Your task to perform on an android device: see sites visited before in the chrome app Image 0: 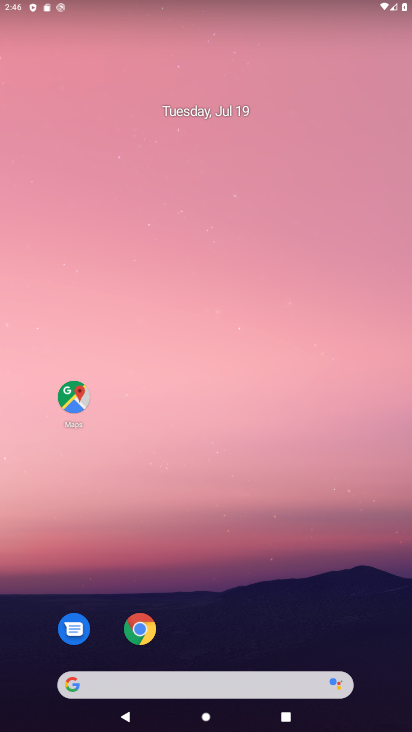
Step 0: click (134, 619)
Your task to perform on an android device: see sites visited before in the chrome app Image 1: 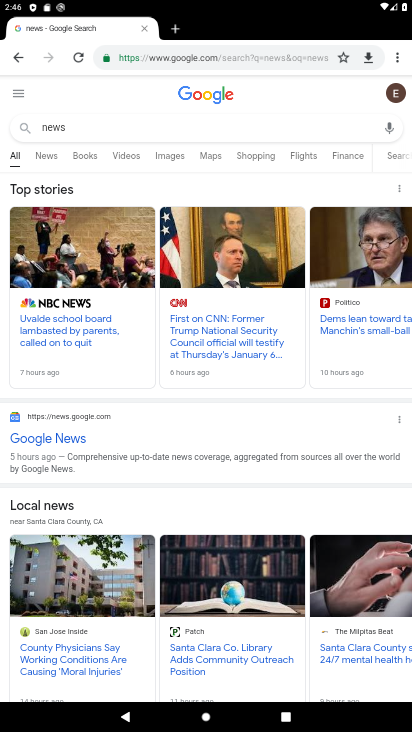
Step 1: task complete